Your task to perform on an android device: toggle translation in the chrome app Image 0: 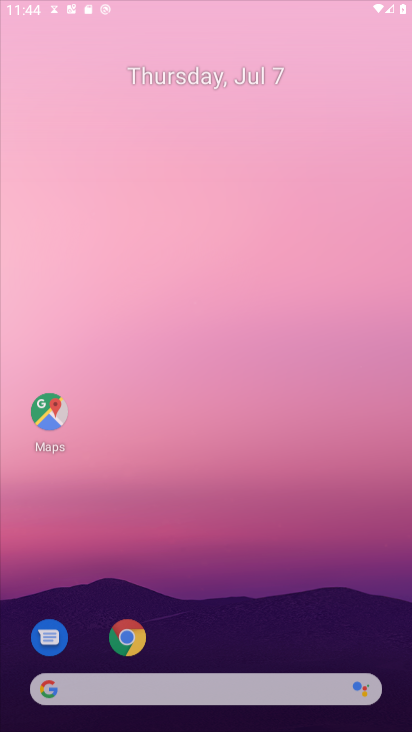
Step 0: press home button
Your task to perform on an android device: toggle translation in the chrome app Image 1: 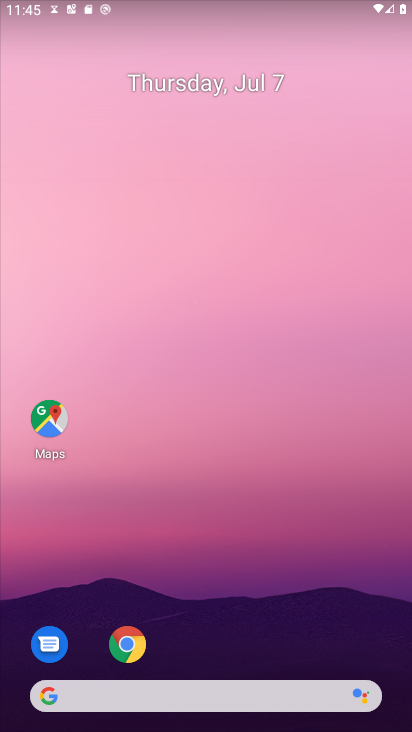
Step 1: press home button
Your task to perform on an android device: toggle translation in the chrome app Image 2: 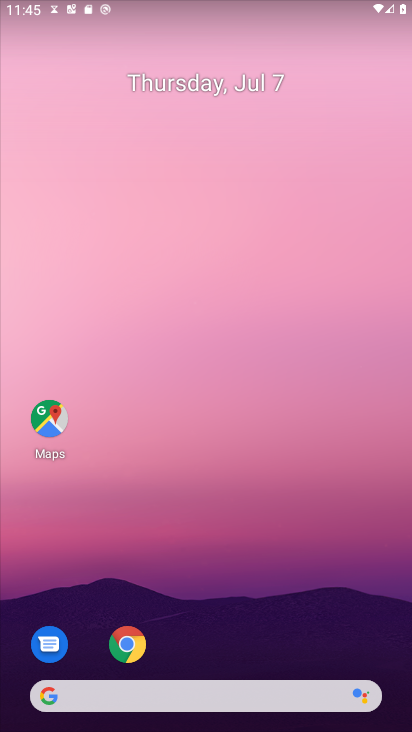
Step 2: click (124, 644)
Your task to perform on an android device: toggle translation in the chrome app Image 3: 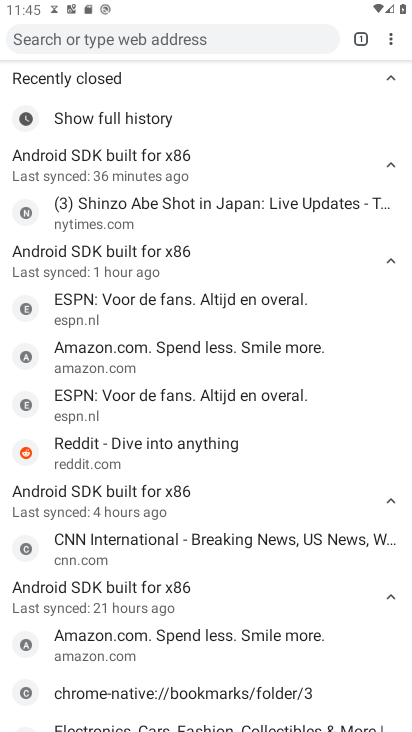
Step 3: drag from (386, 39) to (246, 324)
Your task to perform on an android device: toggle translation in the chrome app Image 4: 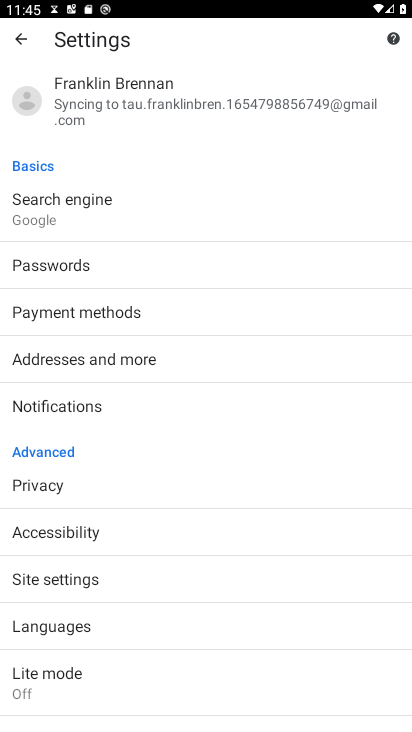
Step 4: click (45, 620)
Your task to perform on an android device: toggle translation in the chrome app Image 5: 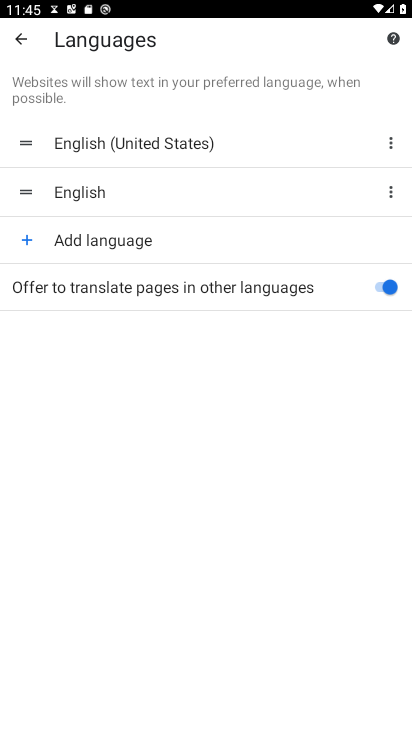
Step 5: click (383, 290)
Your task to perform on an android device: toggle translation in the chrome app Image 6: 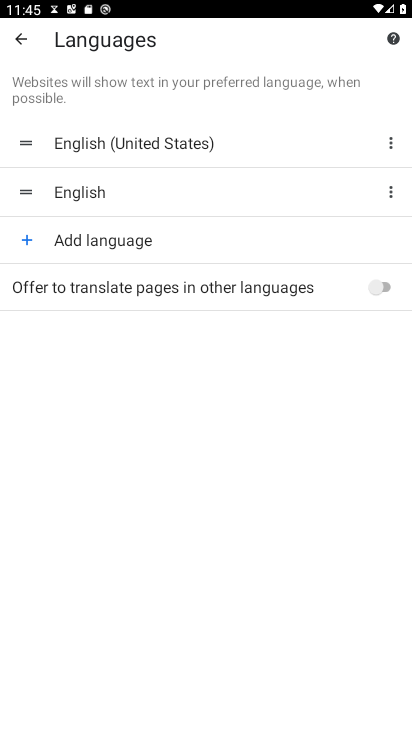
Step 6: task complete